Your task to perform on an android device: turn off translation in the chrome app Image 0: 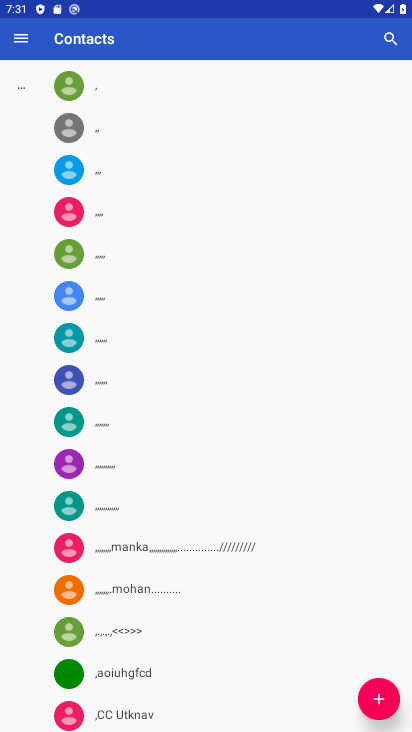
Step 0: press back button
Your task to perform on an android device: turn off translation in the chrome app Image 1: 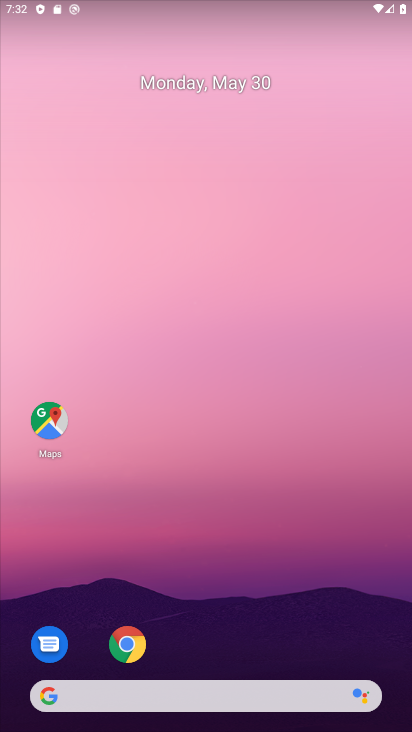
Step 1: click (128, 644)
Your task to perform on an android device: turn off translation in the chrome app Image 2: 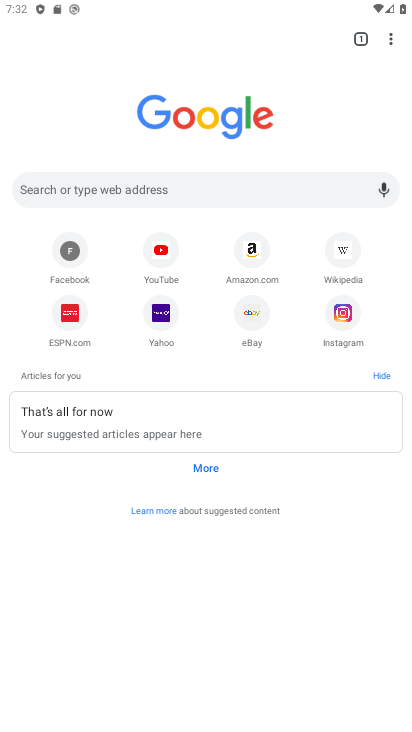
Step 2: click (393, 39)
Your task to perform on an android device: turn off translation in the chrome app Image 3: 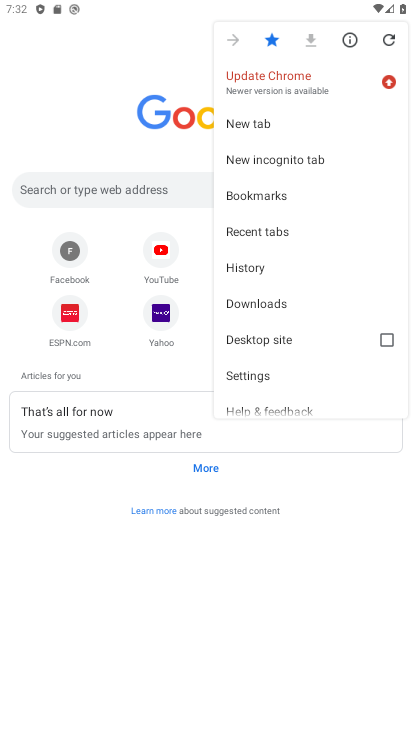
Step 3: click (241, 377)
Your task to perform on an android device: turn off translation in the chrome app Image 4: 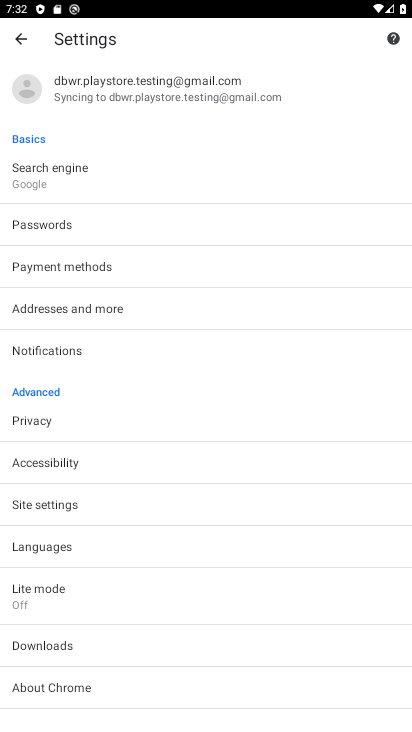
Step 4: click (55, 545)
Your task to perform on an android device: turn off translation in the chrome app Image 5: 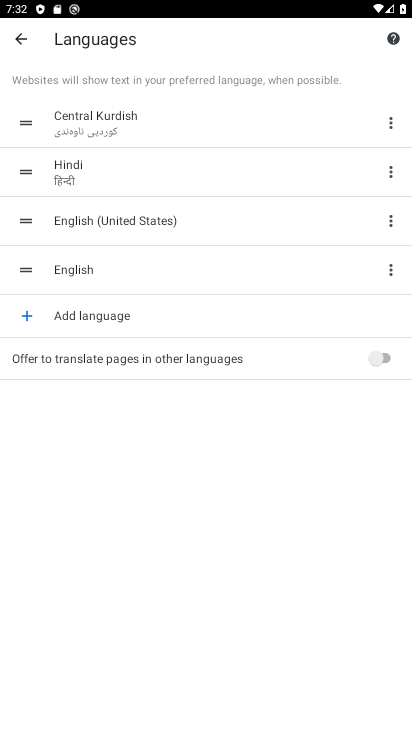
Step 5: task complete